Your task to perform on an android device: Check the news Image 0: 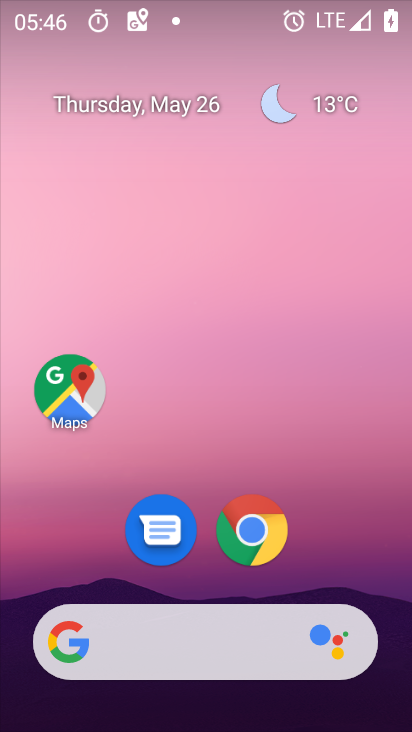
Step 0: drag from (222, 618) to (261, 75)
Your task to perform on an android device: Check the news Image 1: 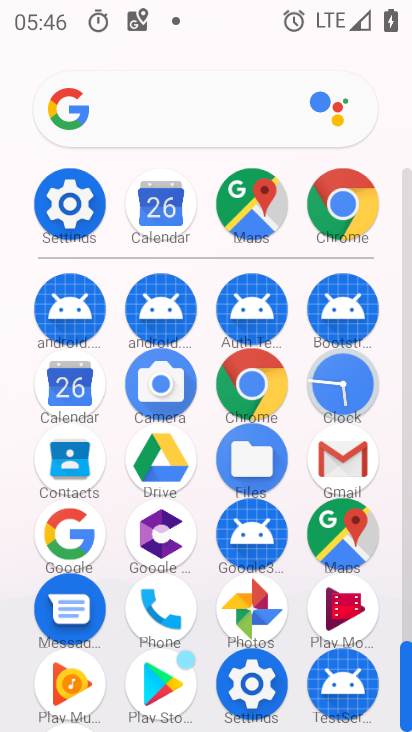
Step 1: click (264, 390)
Your task to perform on an android device: Check the news Image 2: 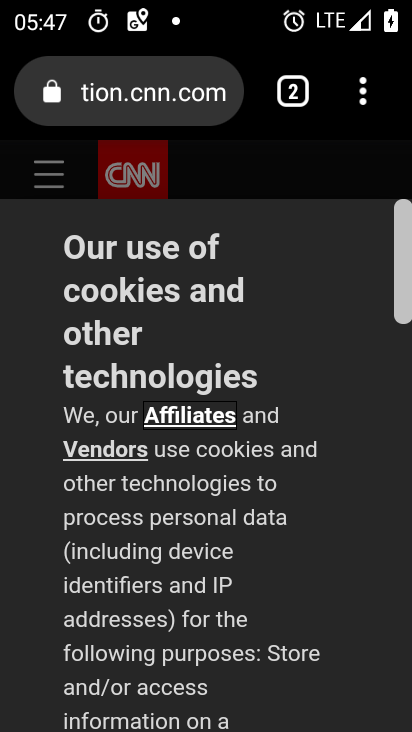
Step 2: click (209, 105)
Your task to perform on an android device: Check the news Image 3: 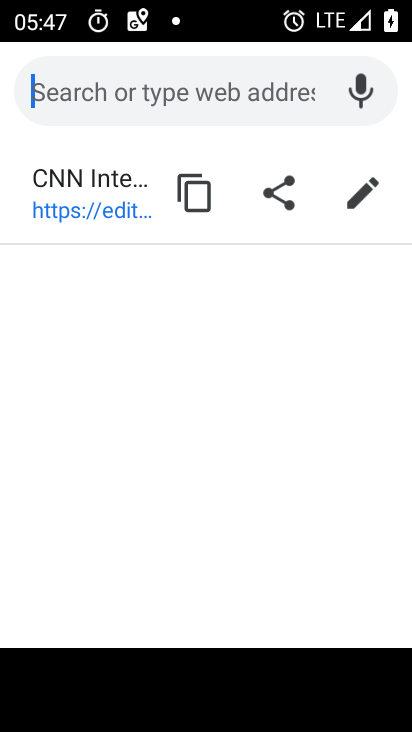
Step 3: type "check the news"
Your task to perform on an android device: Check the news Image 4: 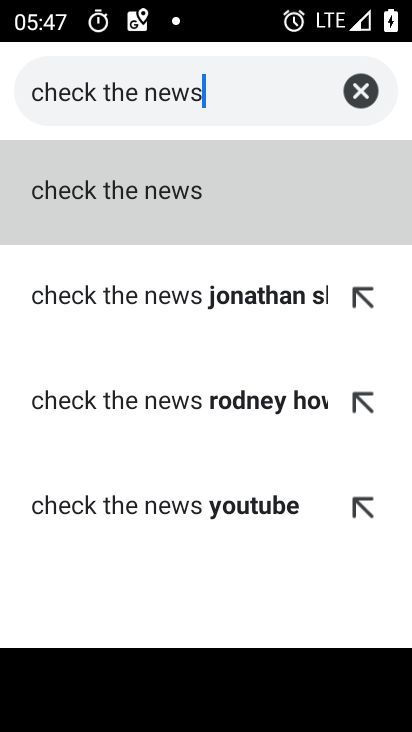
Step 4: click (195, 191)
Your task to perform on an android device: Check the news Image 5: 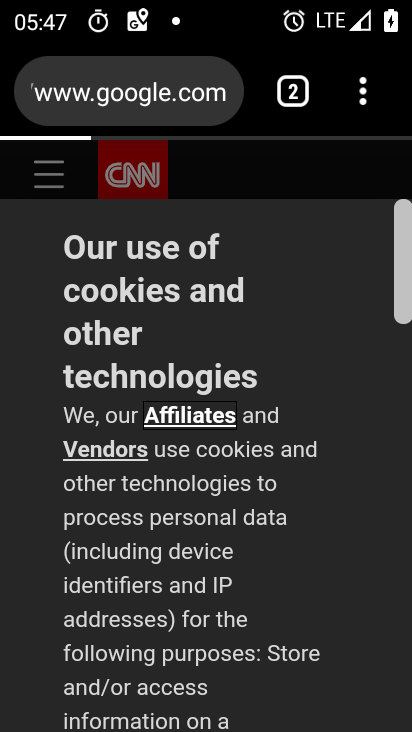
Step 5: click (194, 206)
Your task to perform on an android device: Check the news Image 6: 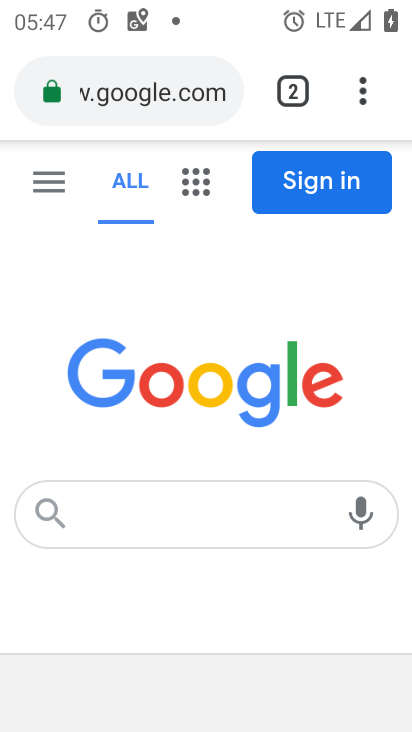
Step 6: task complete